Your task to perform on an android device: turn on javascript in the chrome app Image 0: 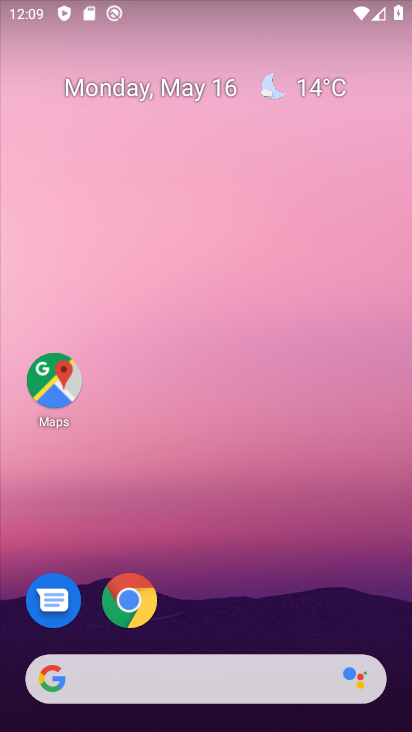
Step 0: click (124, 605)
Your task to perform on an android device: turn on javascript in the chrome app Image 1: 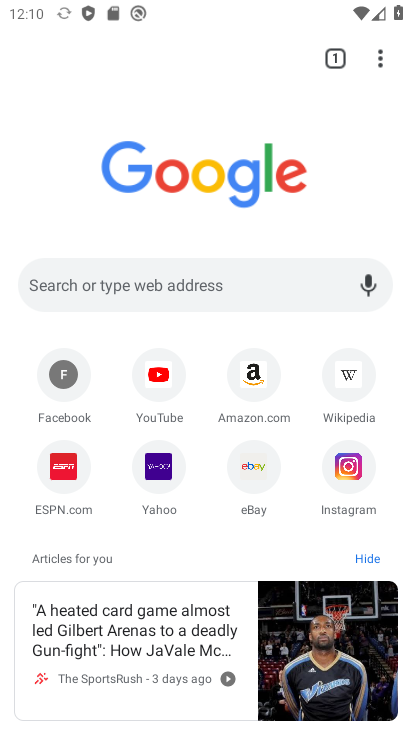
Step 1: drag from (384, 50) to (171, 489)
Your task to perform on an android device: turn on javascript in the chrome app Image 2: 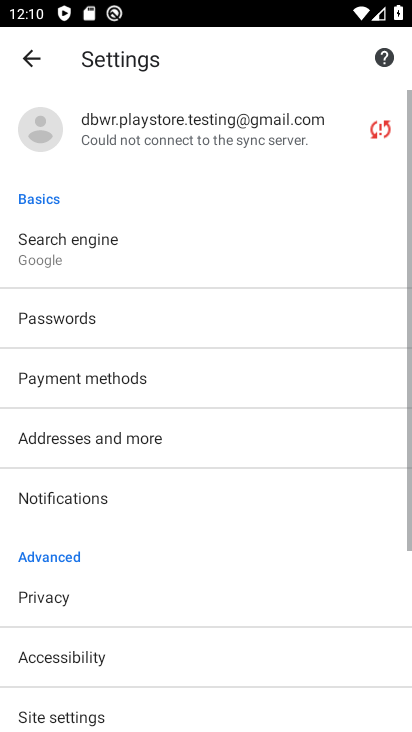
Step 2: drag from (162, 672) to (200, 229)
Your task to perform on an android device: turn on javascript in the chrome app Image 3: 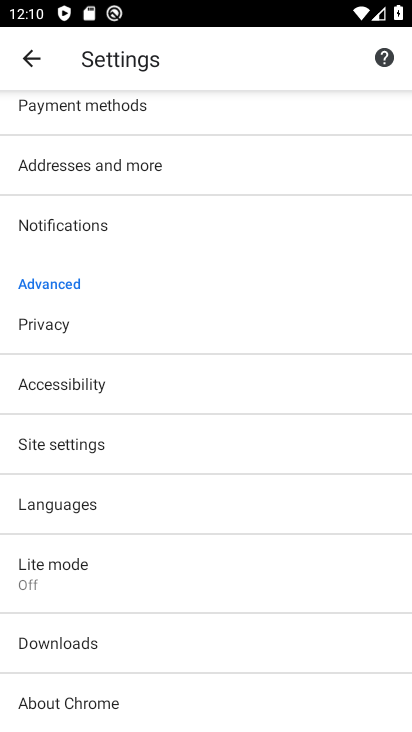
Step 3: click (22, 443)
Your task to perform on an android device: turn on javascript in the chrome app Image 4: 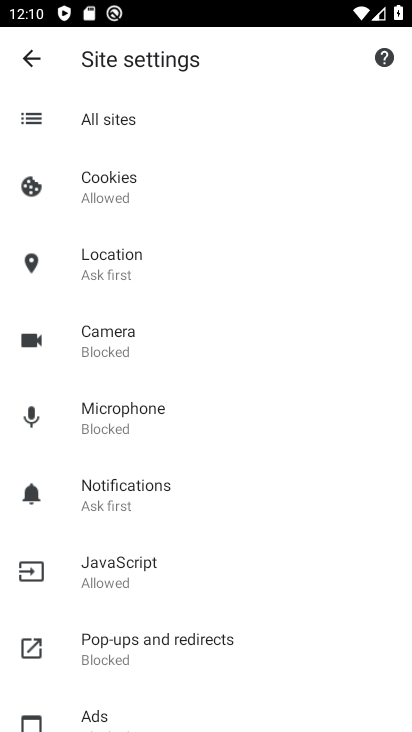
Step 4: click (112, 568)
Your task to perform on an android device: turn on javascript in the chrome app Image 5: 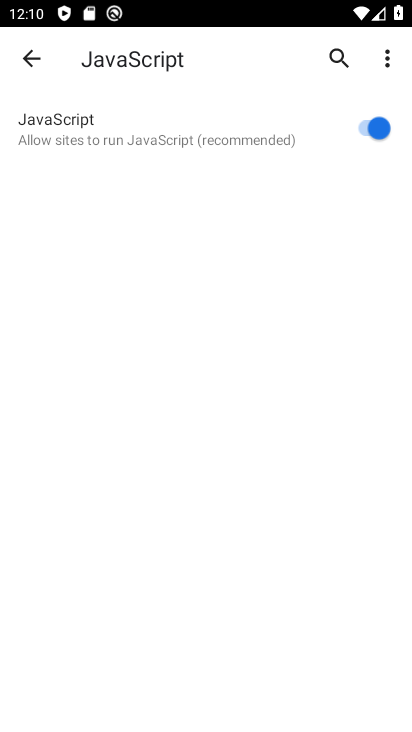
Step 5: task complete